Your task to perform on an android device: Open the web browser Image 0: 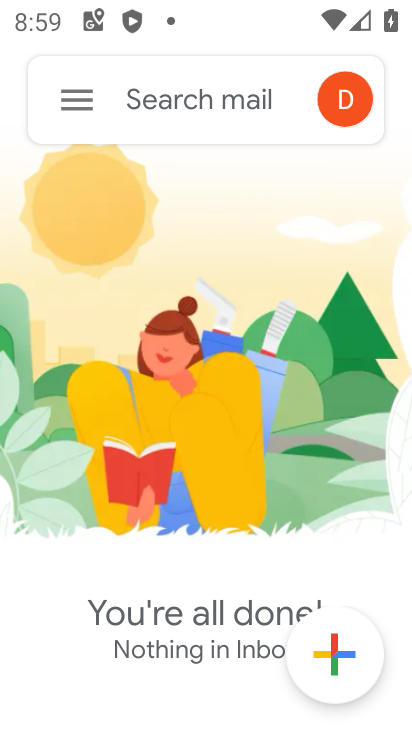
Step 0: press home button
Your task to perform on an android device: Open the web browser Image 1: 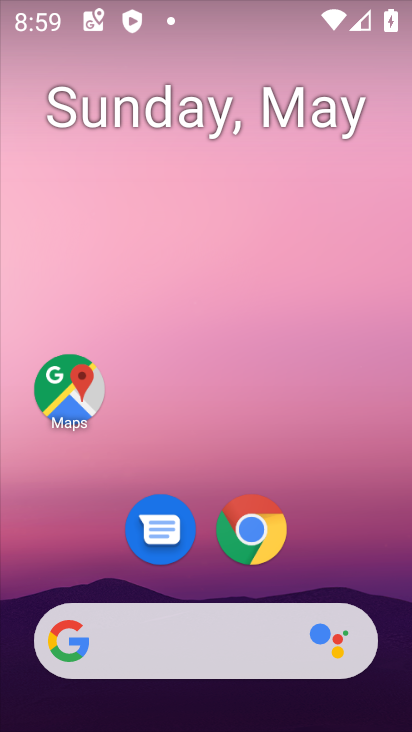
Step 1: click (242, 515)
Your task to perform on an android device: Open the web browser Image 2: 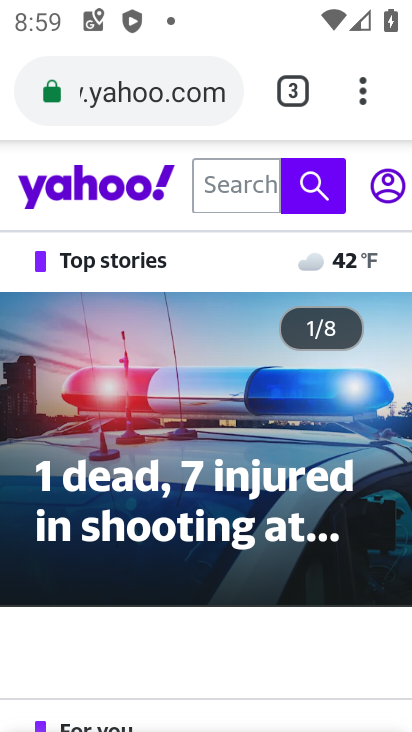
Step 2: task complete